Your task to perform on an android device: open app "Adobe Acrobat Reader: Edit PDF" (install if not already installed) Image 0: 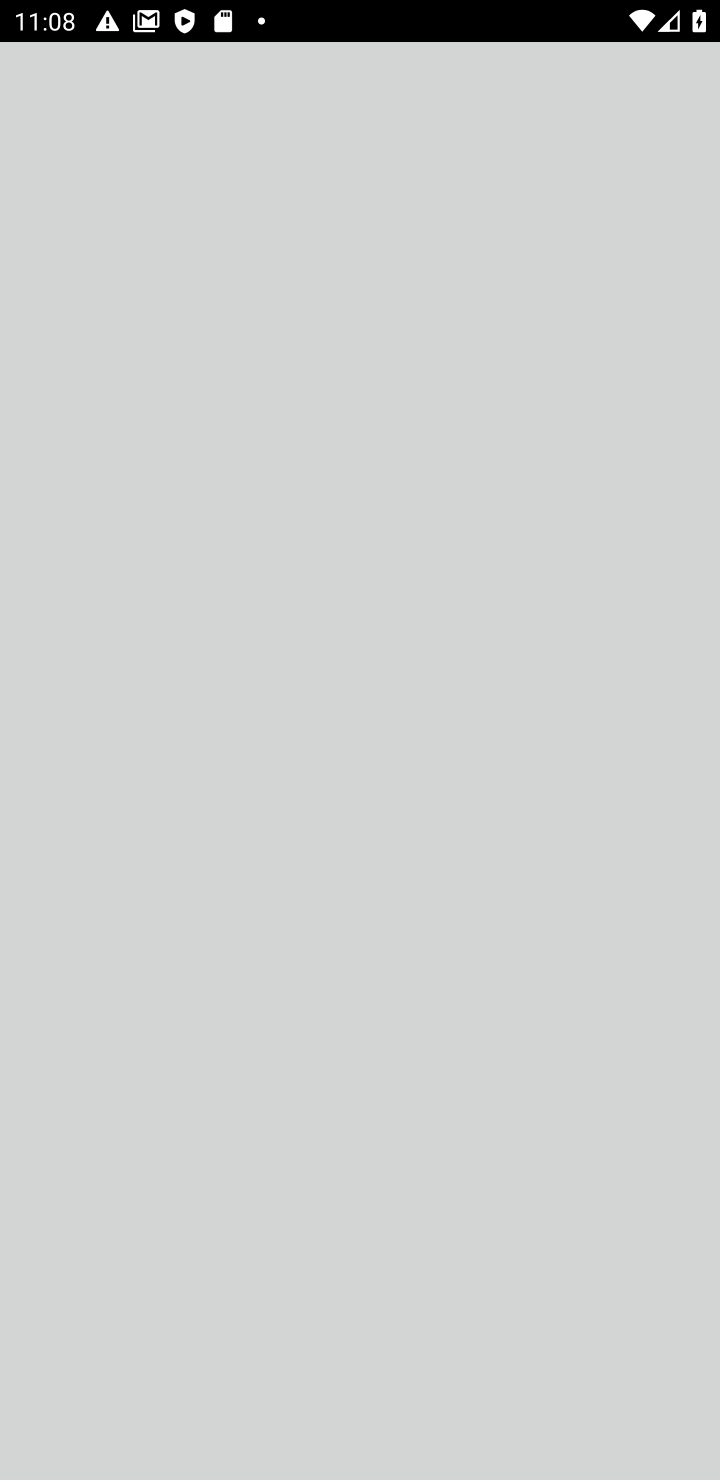
Step 0: press home button
Your task to perform on an android device: open app "Adobe Acrobat Reader: Edit PDF" (install if not already installed) Image 1: 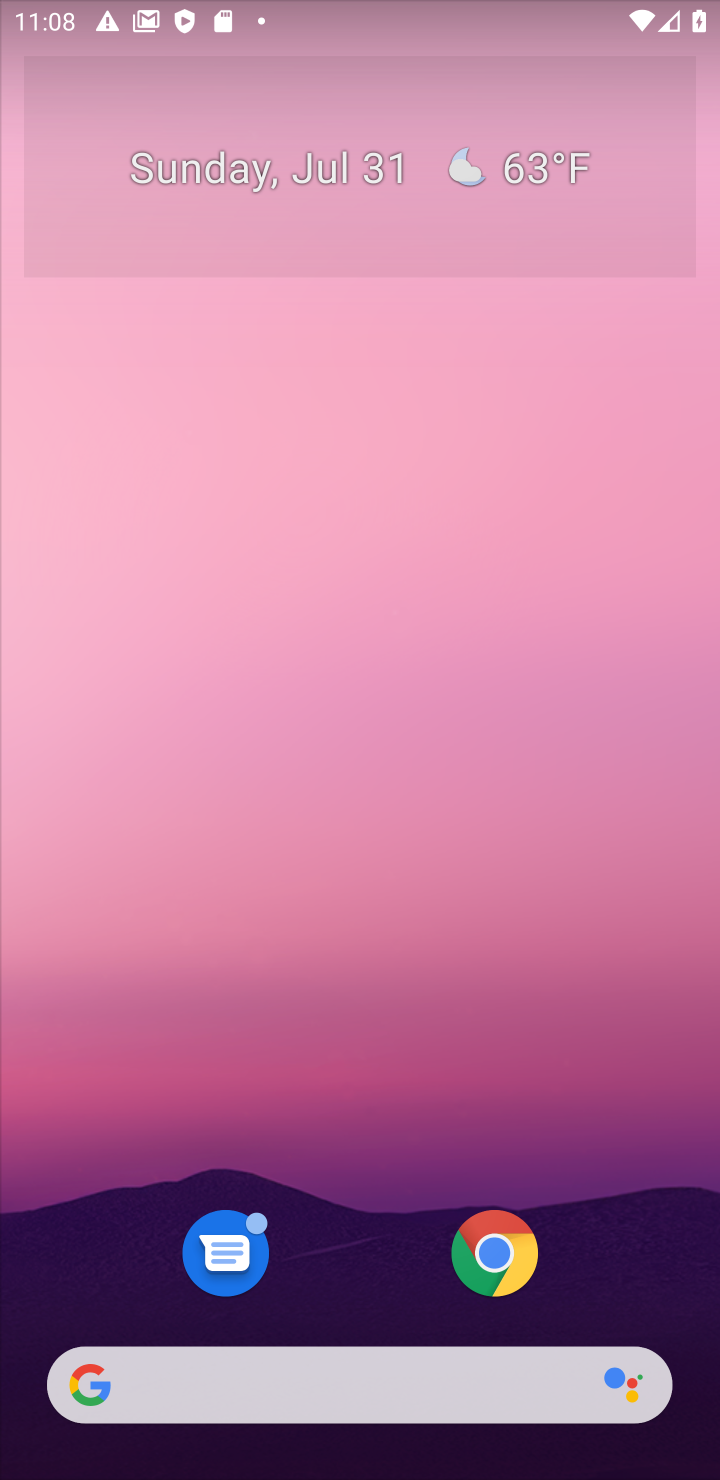
Step 1: drag from (385, 1093) to (295, 73)
Your task to perform on an android device: open app "Adobe Acrobat Reader: Edit PDF" (install if not already installed) Image 2: 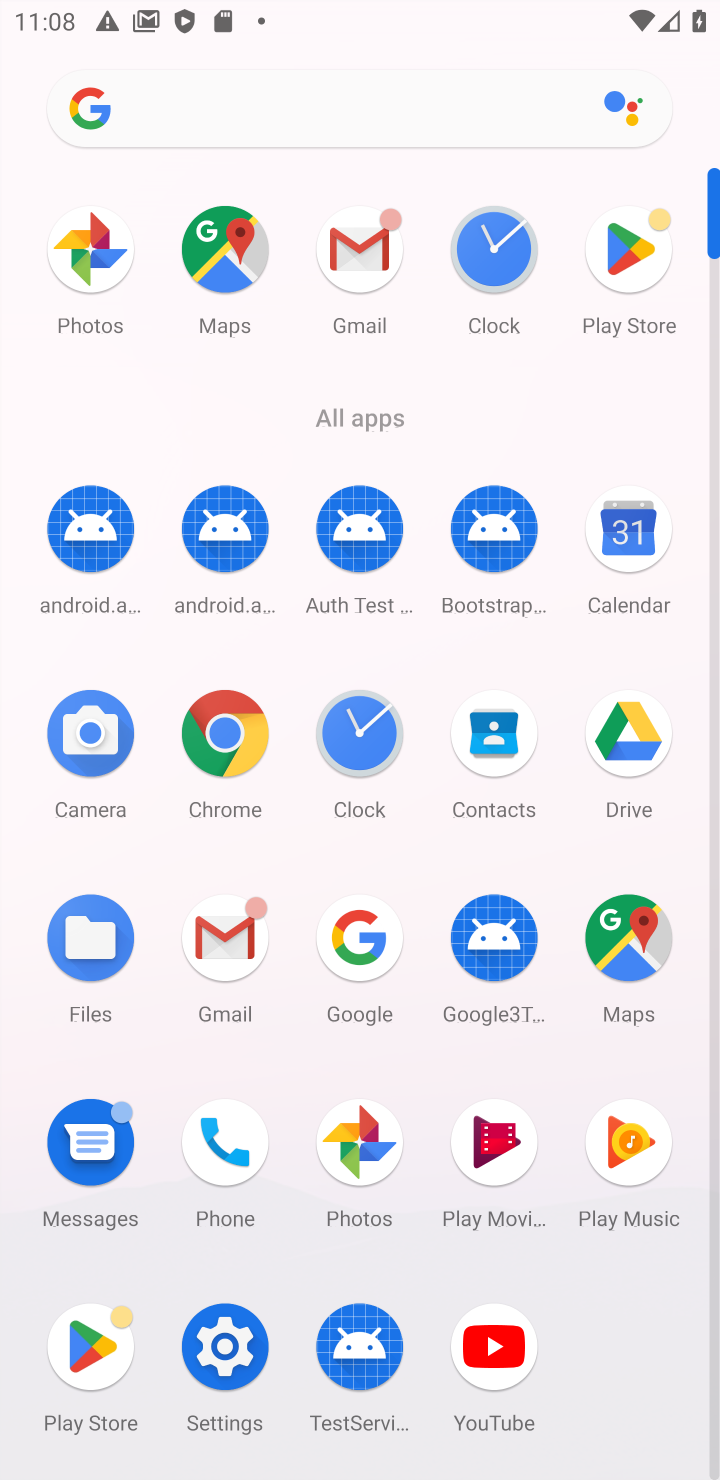
Step 2: click (647, 267)
Your task to perform on an android device: open app "Adobe Acrobat Reader: Edit PDF" (install if not already installed) Image 3: 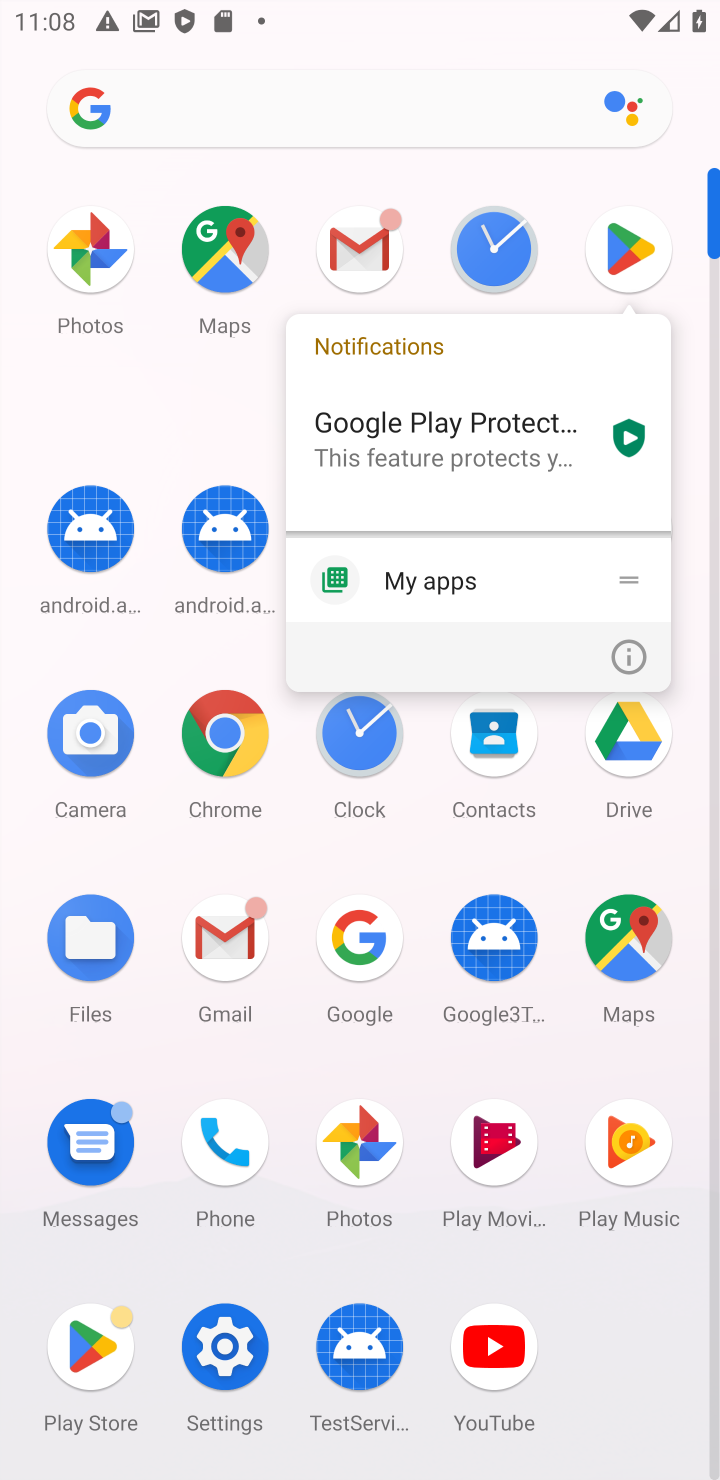
Step 3: click (645, 255)
Your task to perform on an android device: open app "Adobe Acrobat Reader: Edit PDF" (install if not already installed) Image 4: 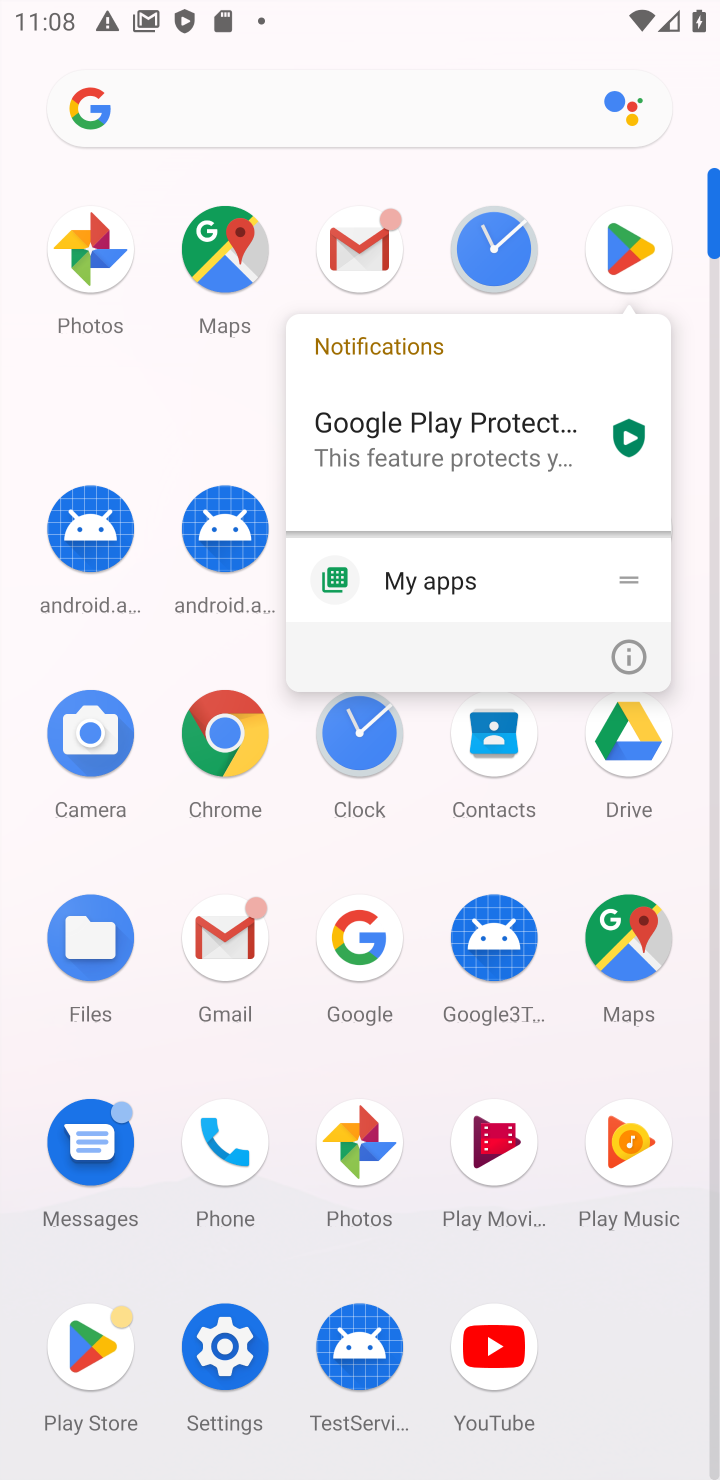
Step 4: click (618, 258)
Your task to perform on an android device: open app "Adobe Acrobat Reader: Edit PDF" (install if not already installed) Image 5: 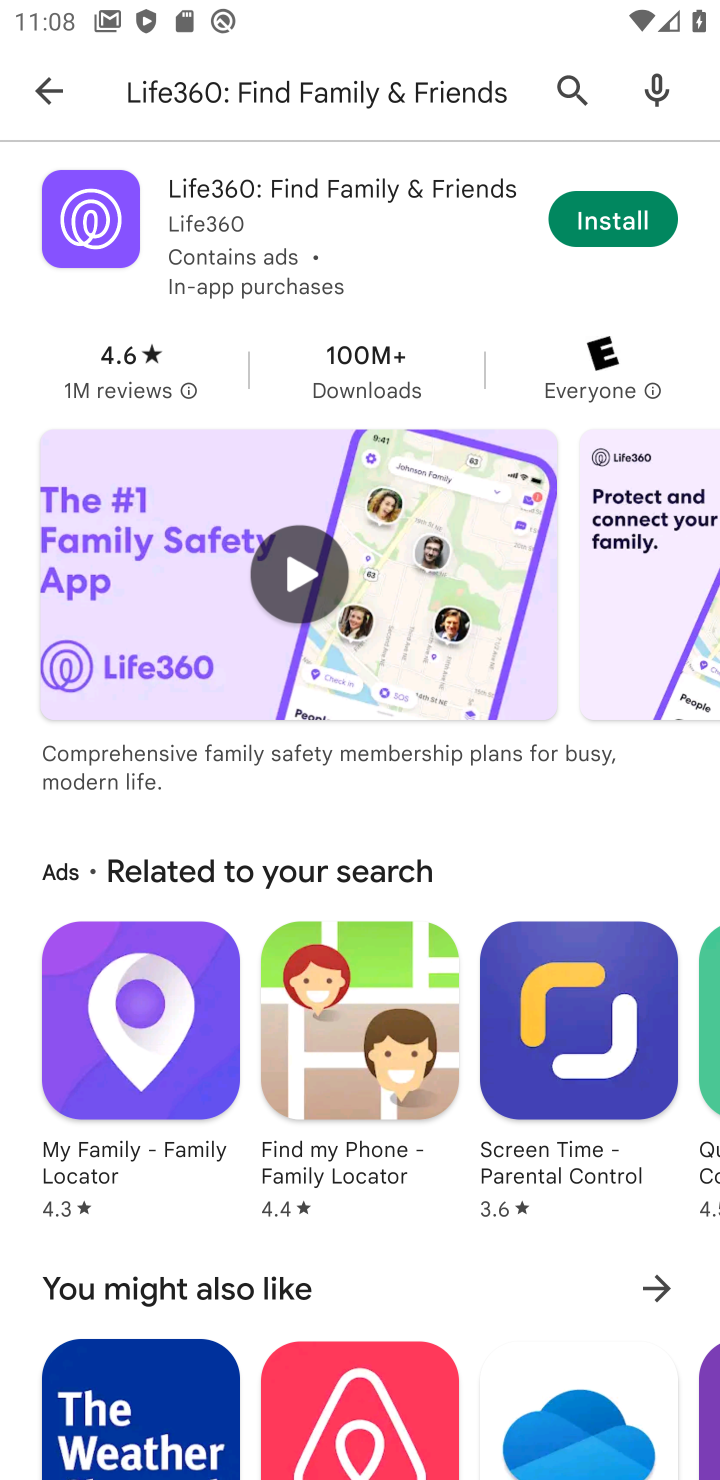
Step 5: click (335, 85)
Your task to perform on an android device: open app "Adobe Acrobat Reader: Edit PDF" (install if not already installed) Image 6: 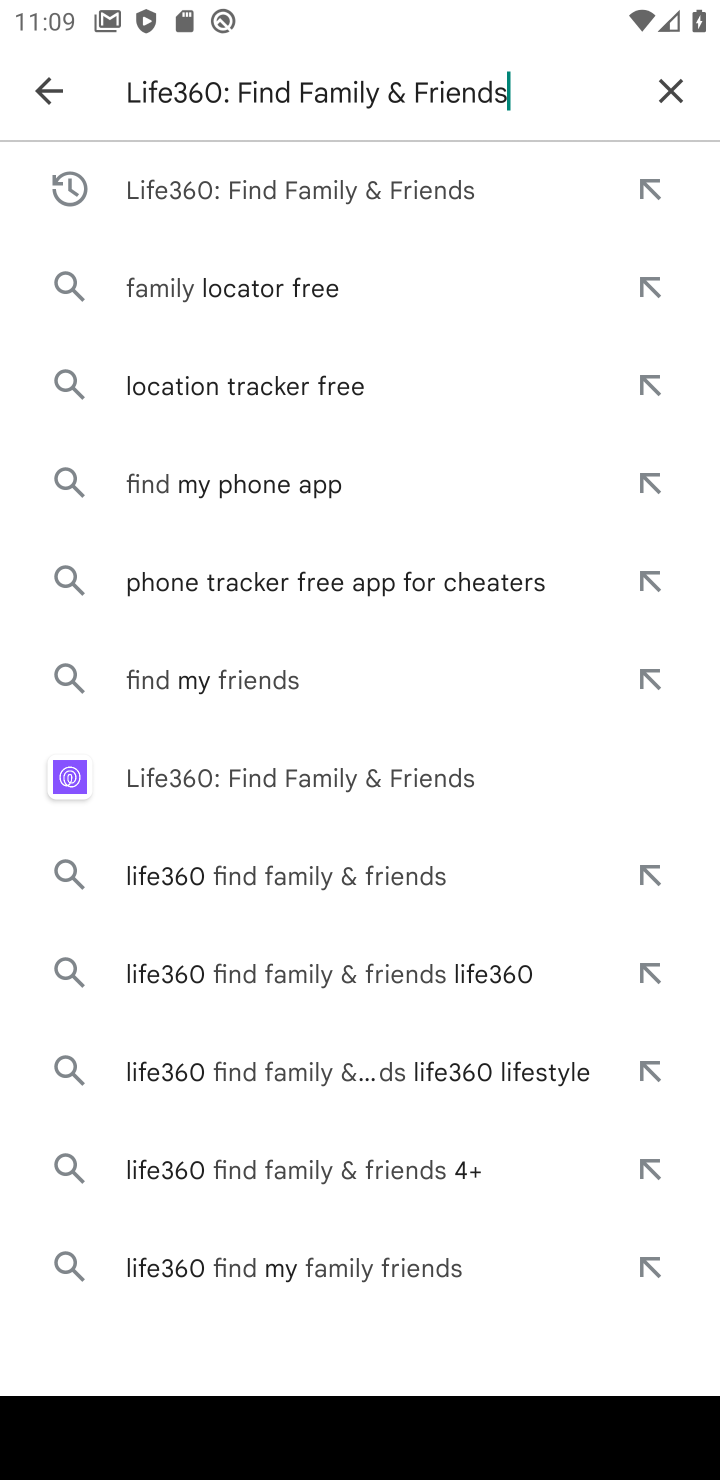
Step 6: click (676, 75)
Your task to perform on an android device: open app "Adobe Acrobat Reader: Edit PDF" (install if not already installed) Image 7: 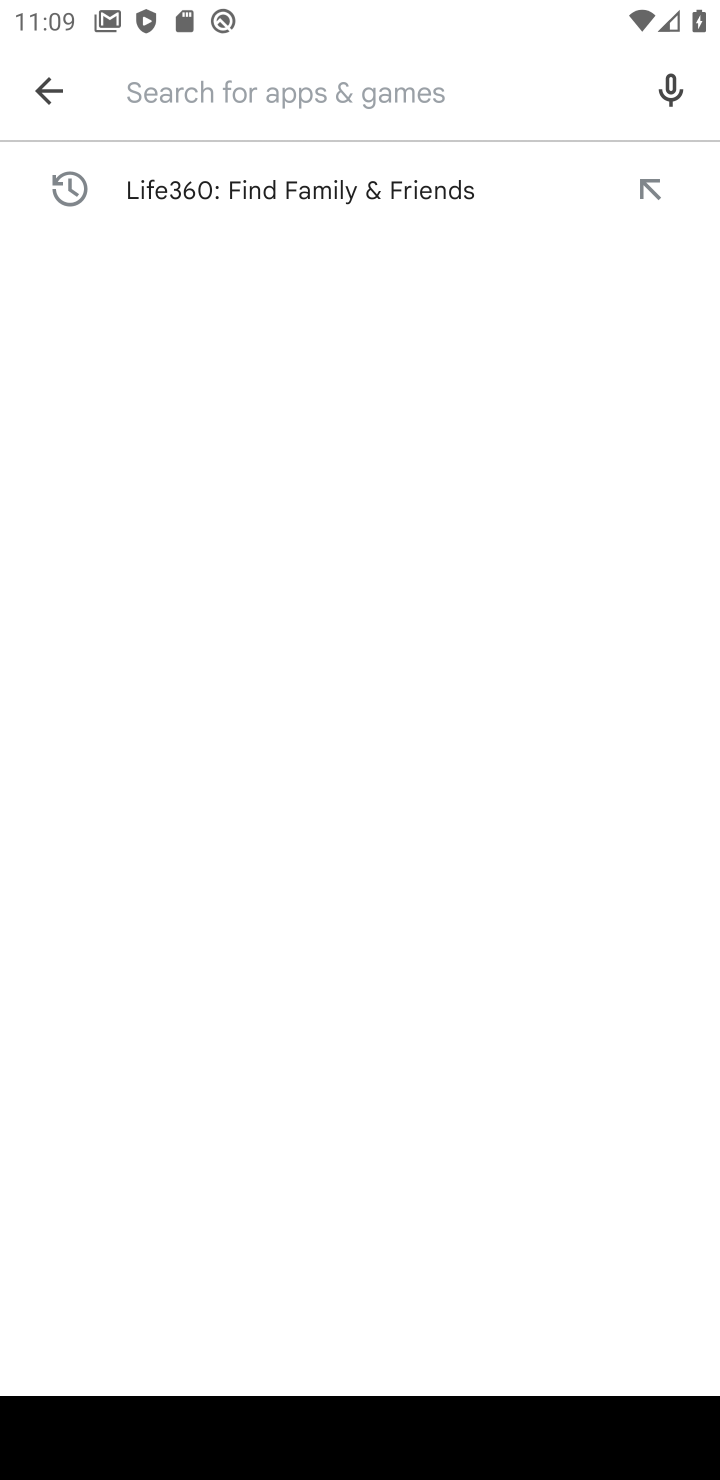
Step 7: type "Adobe Acrobat Reader: Edit PDF"
Your task to perform on an android device: open app "Adobe Acrobat Reader: Edit PDF" (install if not already installed) Image 8: 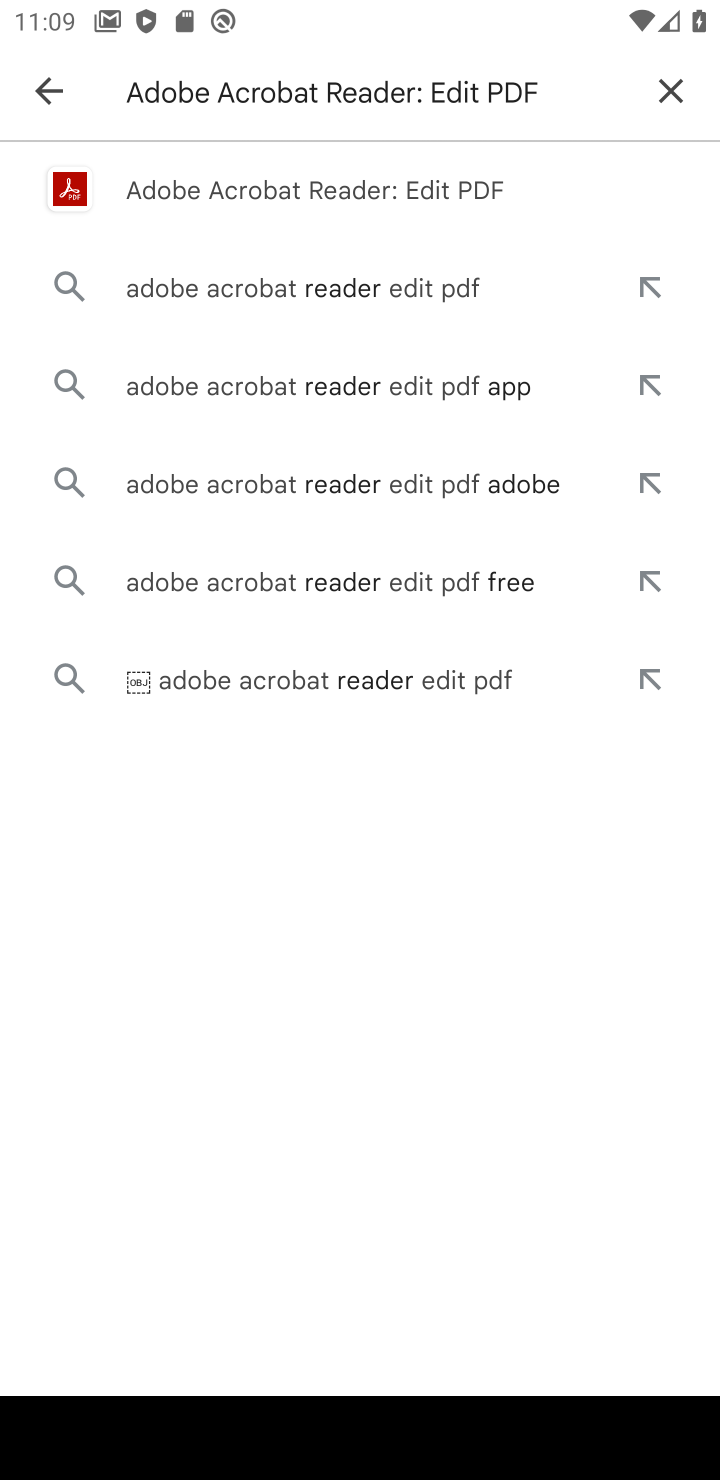
Step 8: click (379, 185)
Your task to perform on an android device: open app "Adobe Acrobat Reader: Edit PDF" (install if not already installed) Image 9: 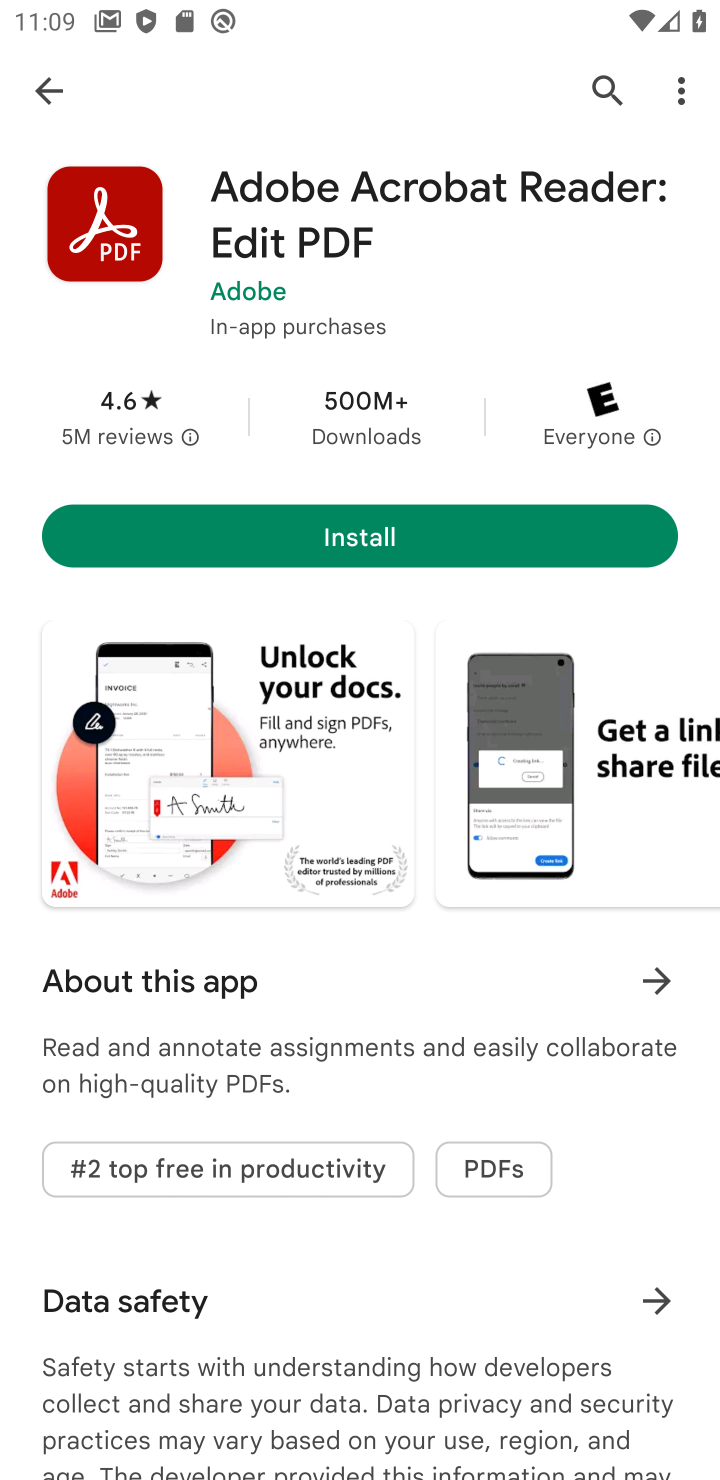
Step 9: click (541, 539)
Your task to perform on an android device: open app "Adobe Acrobat Reader: Edit PDF" (install if not already installed) Image 10: 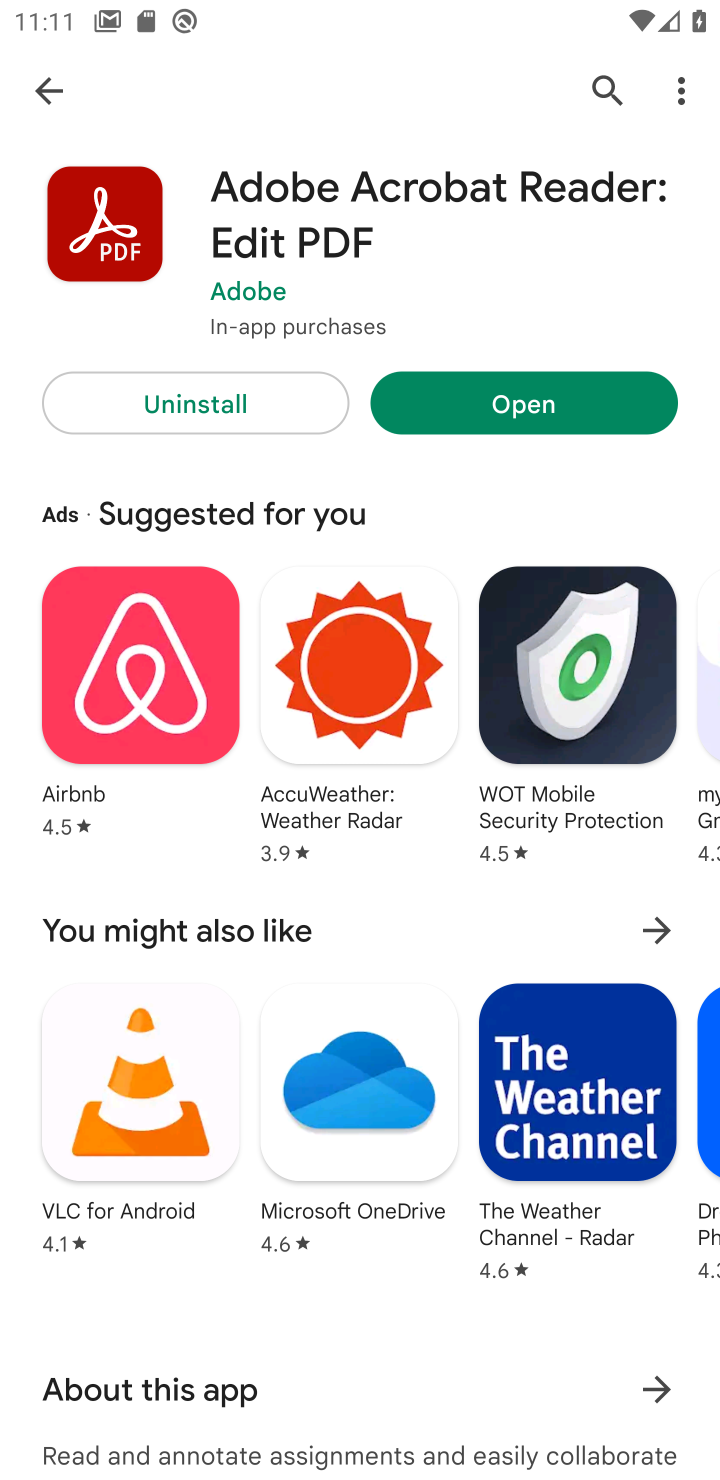
Step 10: click (569, 409)
Your task to perform on an android device: open app "Adobe Acrobat Reader: Edit PDF" (install if not already installed) Image 11: 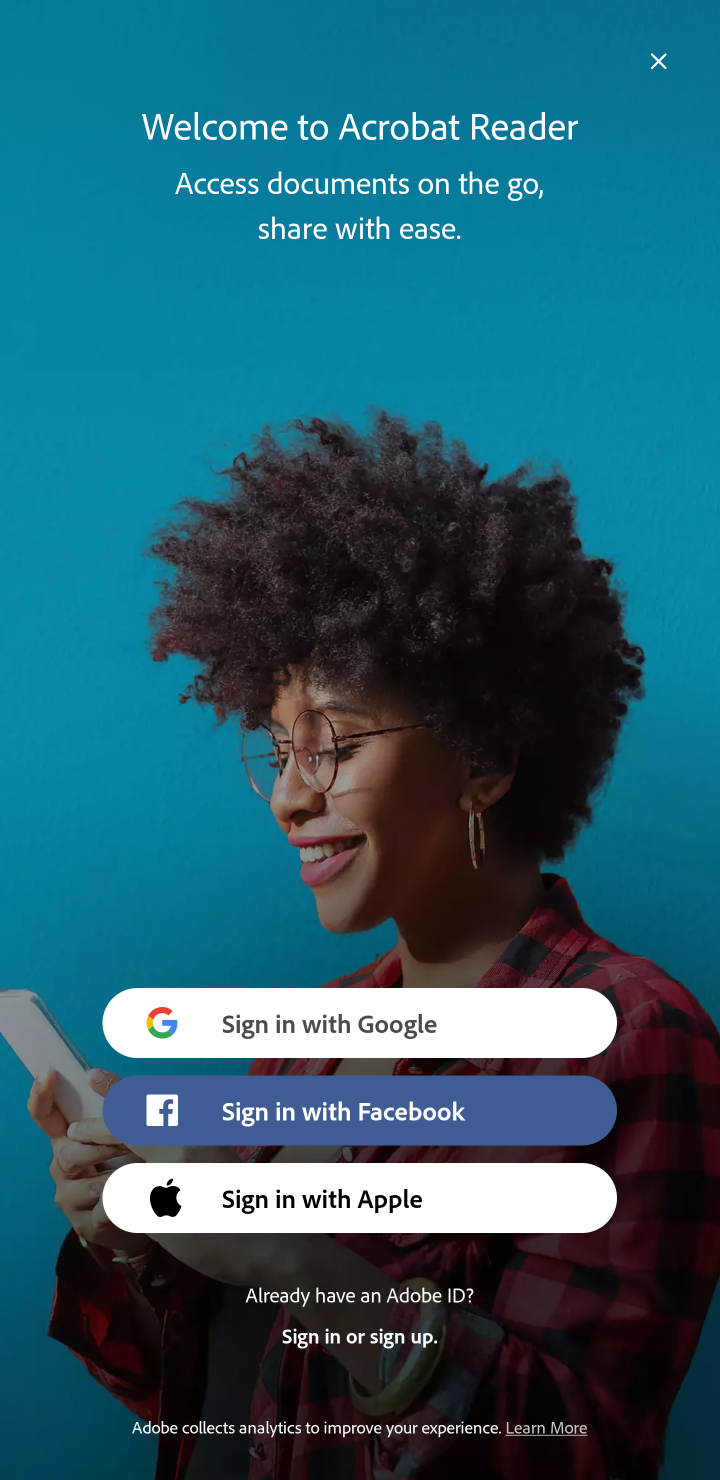
Step 11: task complete